Your task to perform on an android device: toggle translation in the chrome app Image 0: 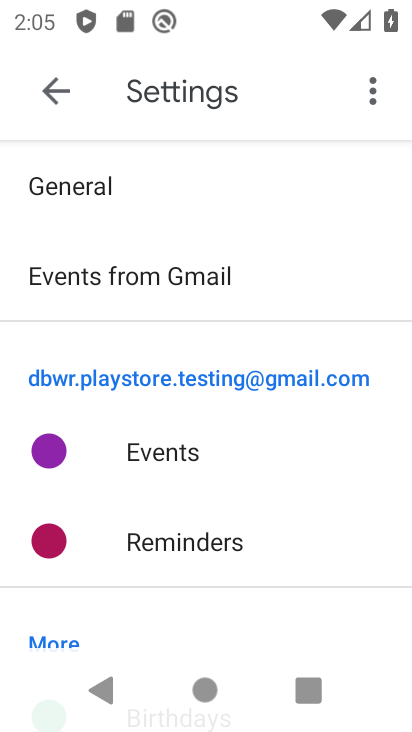
Step 0: press home button
Your task to perform on an android device: toggle translation in the chrome app Image 1: 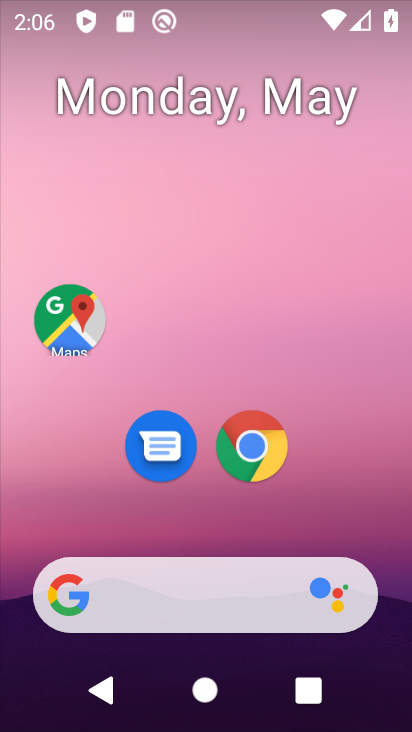
Step 1: press home button
Your task to perform on an android device: toggle translation in the chrome app Image 2: 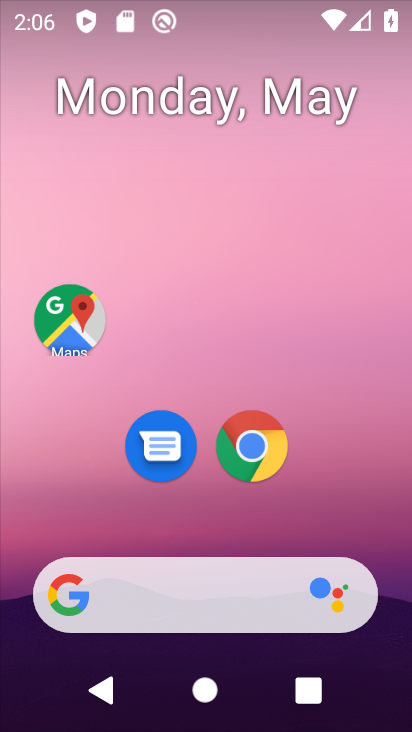
Step 2: drag from (314, 465) to (314, 111)
Your task to perform on an android device: toggle translation in the chrome app Image 3: 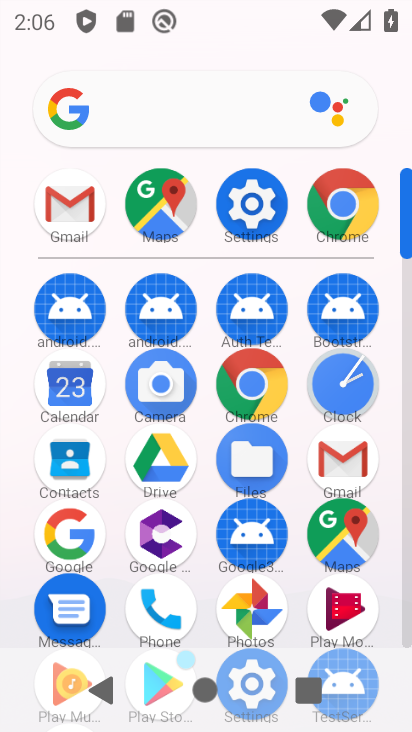
Step 3: click (257, 372)
Your task to perform on an android device: toggle translation in the chrome app Image 4: 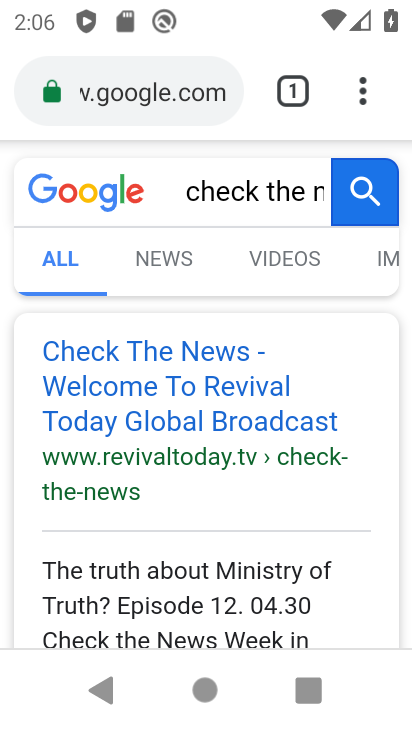
Step 4: drag from (362, 106) to (178, 479)
Your task to perform on an android device: toggle translation in the chrome app Image 5: 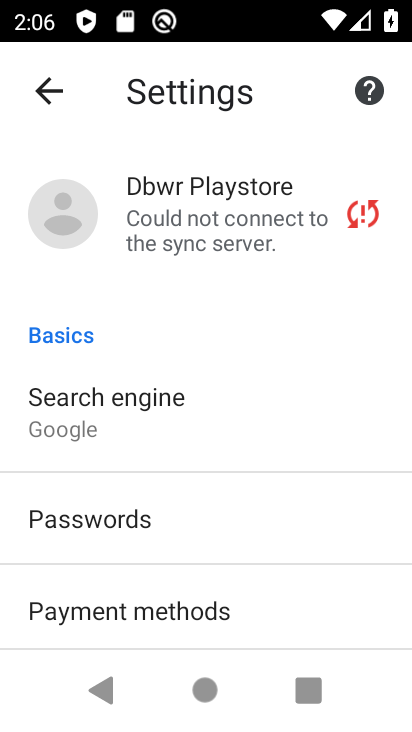
Step 5: drag from (221, 493) to (221, 260)
Your task to perform on an android device: toggle translation in the chrome app Image 6: 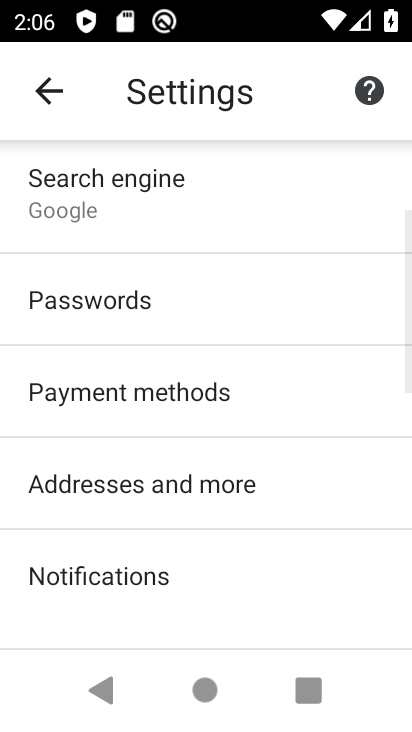
Step 6: drag from (222, 611) to (263, 276)
Your task to perform on an android device: toggle translation in the chrome app Image 7: 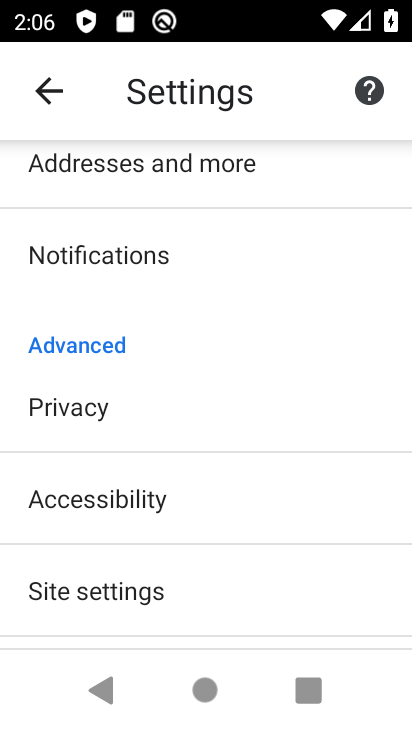
Step 7: drag from (213, 580) to (219, 259)
Your task to perform on an android device: toggle translation in the chrome app Image 8: 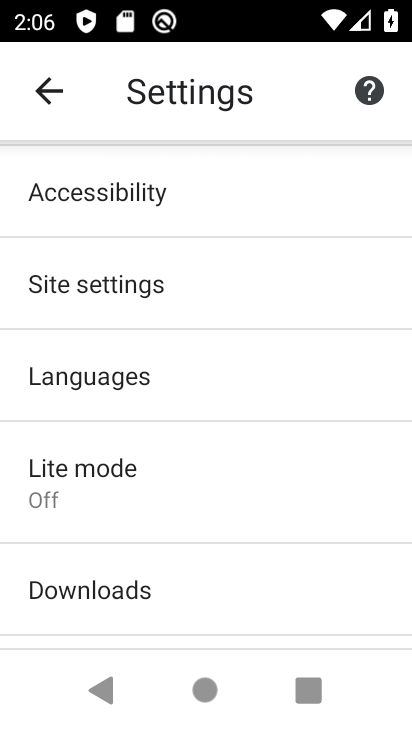
Step 8: click (162, 394)
Your task to perform on an android device: toggle translation in the chrome app Image 9: 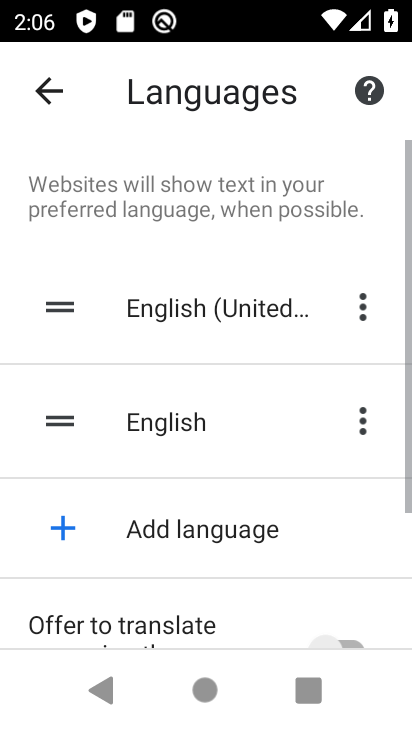
Step 9: drag from (274, 601) to (288, 167)
Your task to perform on an android device: toggle translation in the chrome app Image 10: 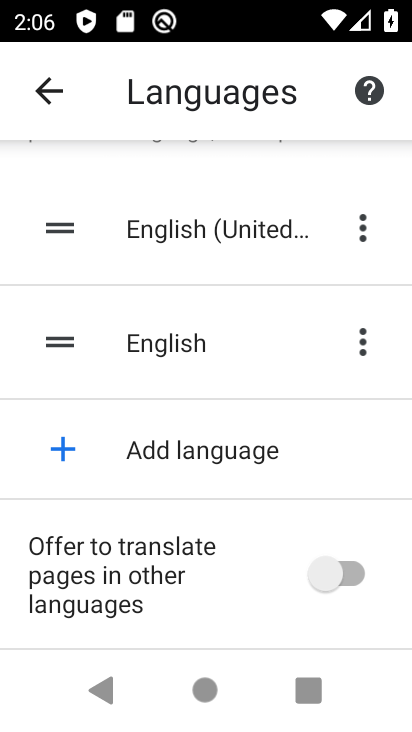
Step 10: click (345, 572)
Your task to perform on an android device: toggle translation in the chrome app Image 11: 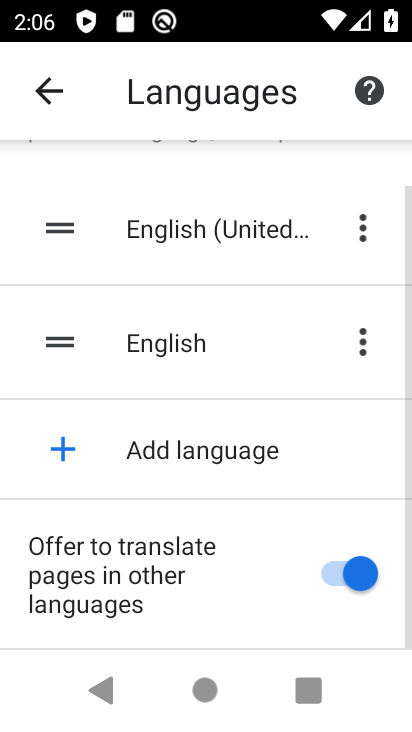
Step 11: task complete